Your task to perform on an android device: Open the map Image 0: 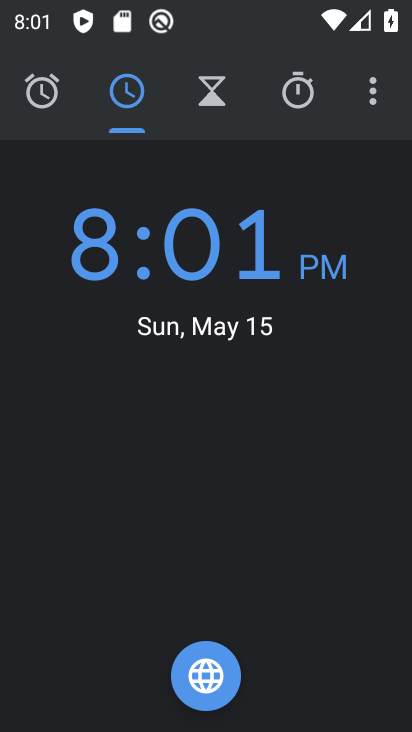
Step 0: press home button
Your task to perform on an android device: Open the map Image 1: 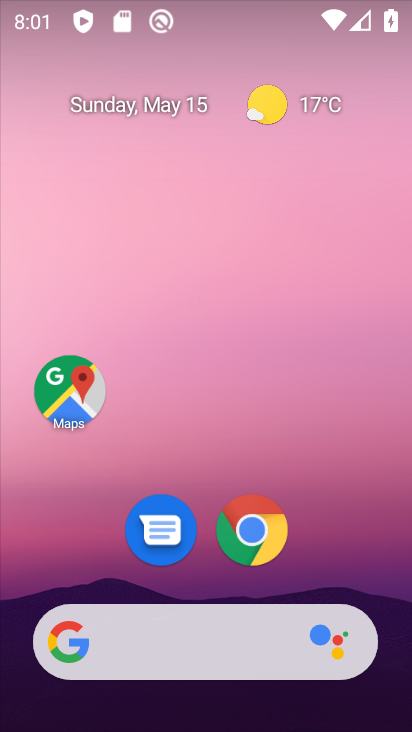
Step 1: drag from (202, 715) to (194, 148)
Your task to perform on an android device: Open the map Image 2: 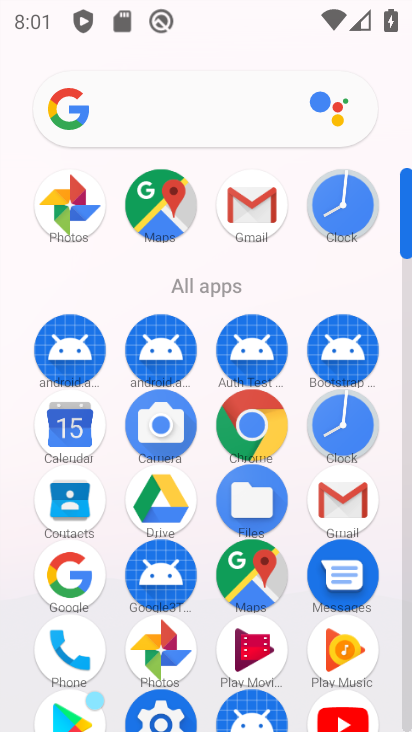
Step 2: click (248, 582)
Your task to perform on an android device: Open the map Image 3: 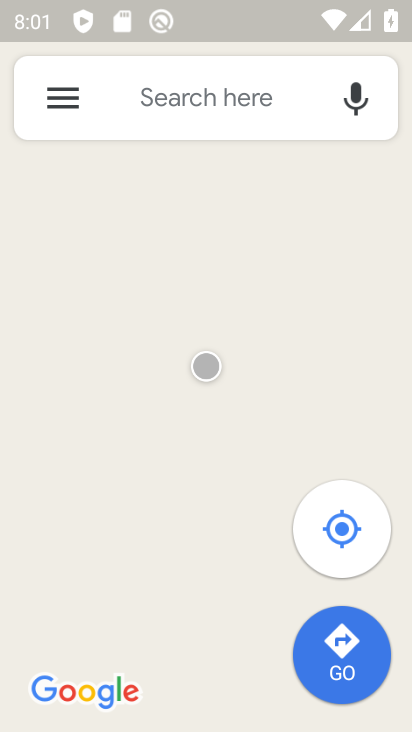
Step 3: task complete